Your task to perform on an android device: turn off sleep mode Image 0: 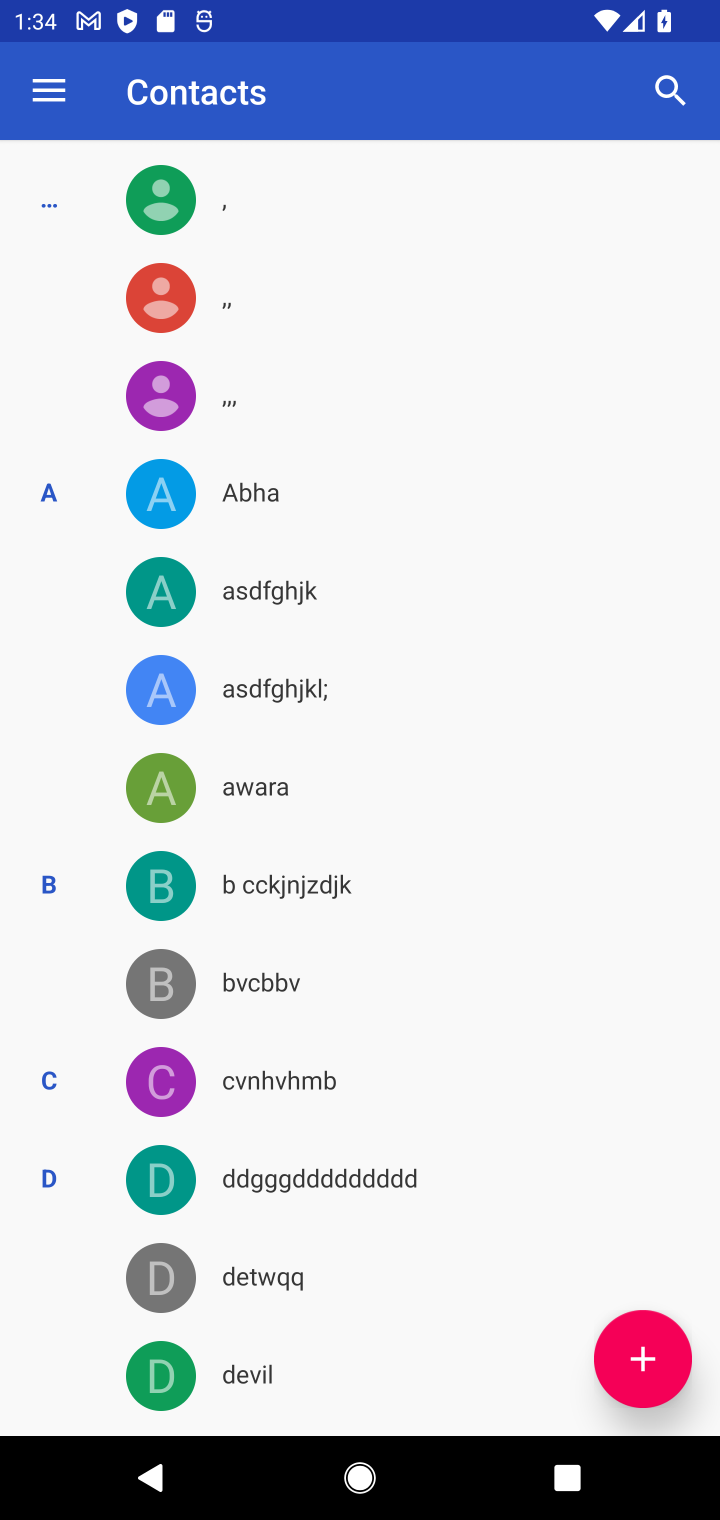
Step 0: press home button
Your task to perform on an android device: turn off sleep mode Image 1: 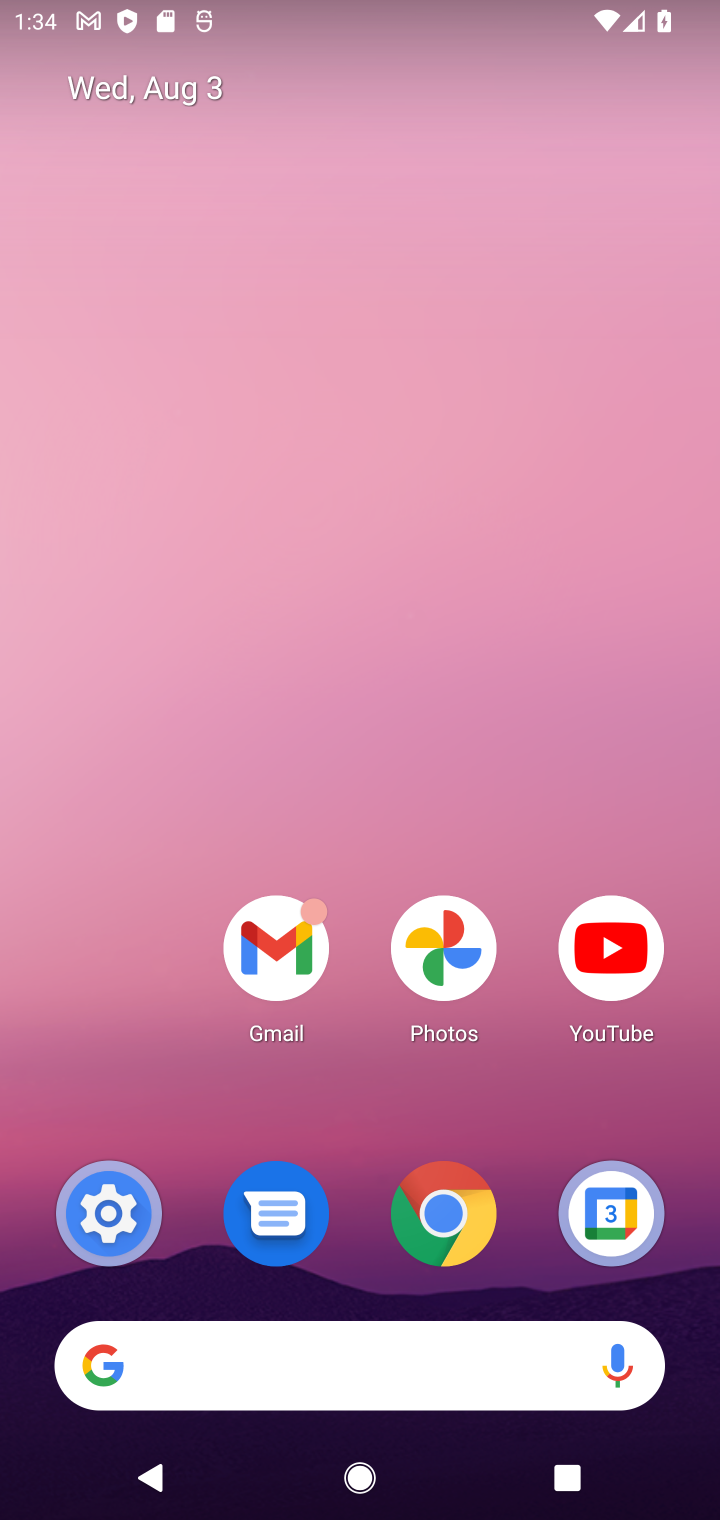
Step 1: drag from (353, 1336) to (505, 0)
Your task to perform on an android device: turn off sleep mode Image 2: 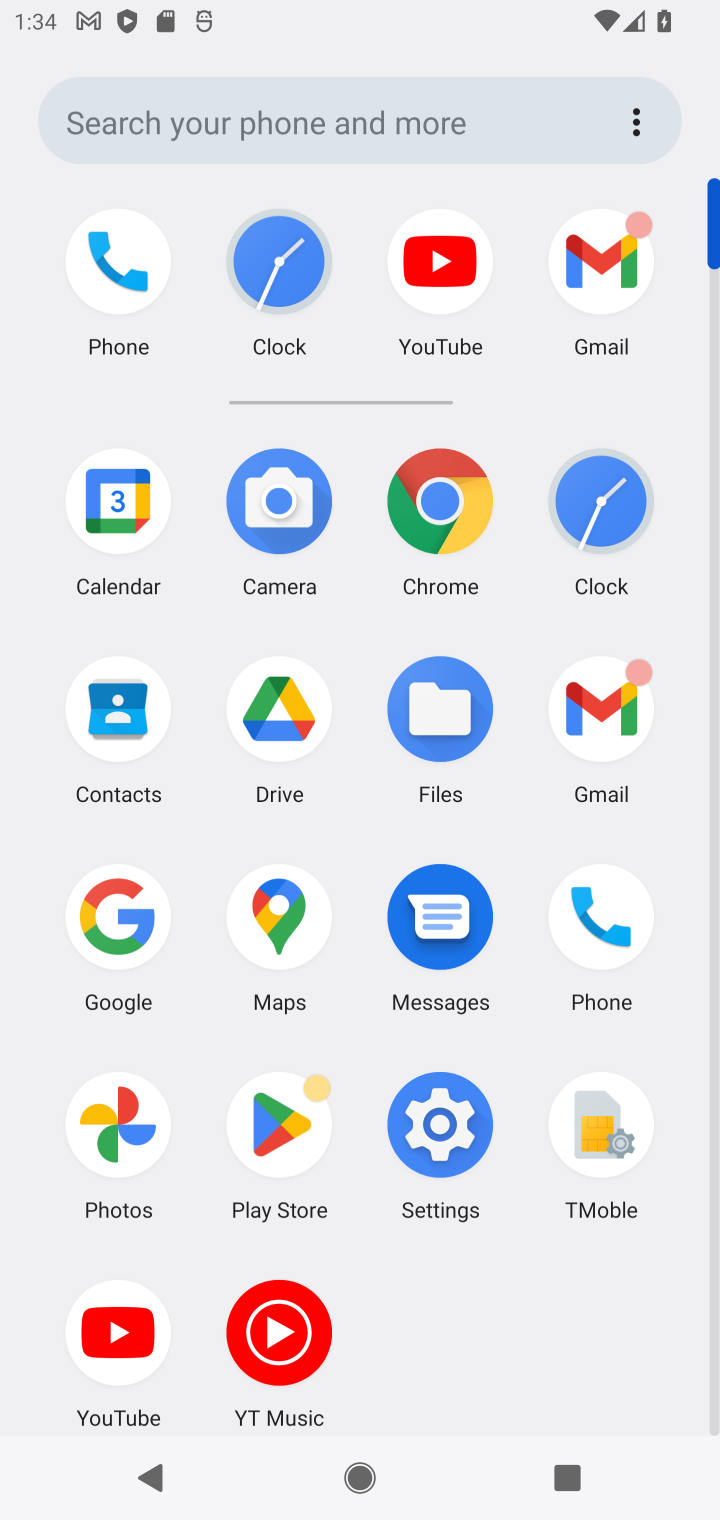
Step 2: click (436, 1132)
Your task to perform on an android device: turn off sleep mode Image 3: 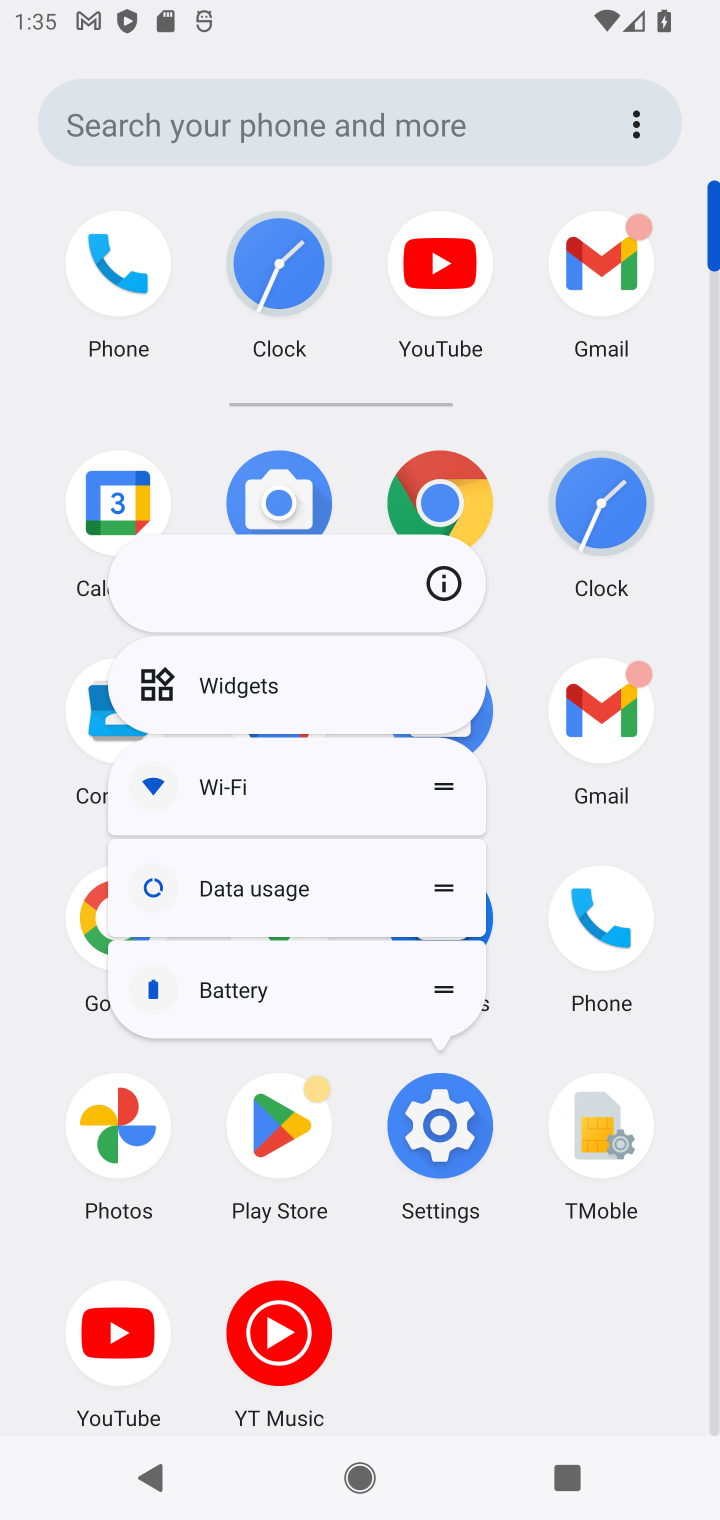
Step 3: click (434, 1136)
Your task to perform on an android device: turn off sleep mode Image 4: 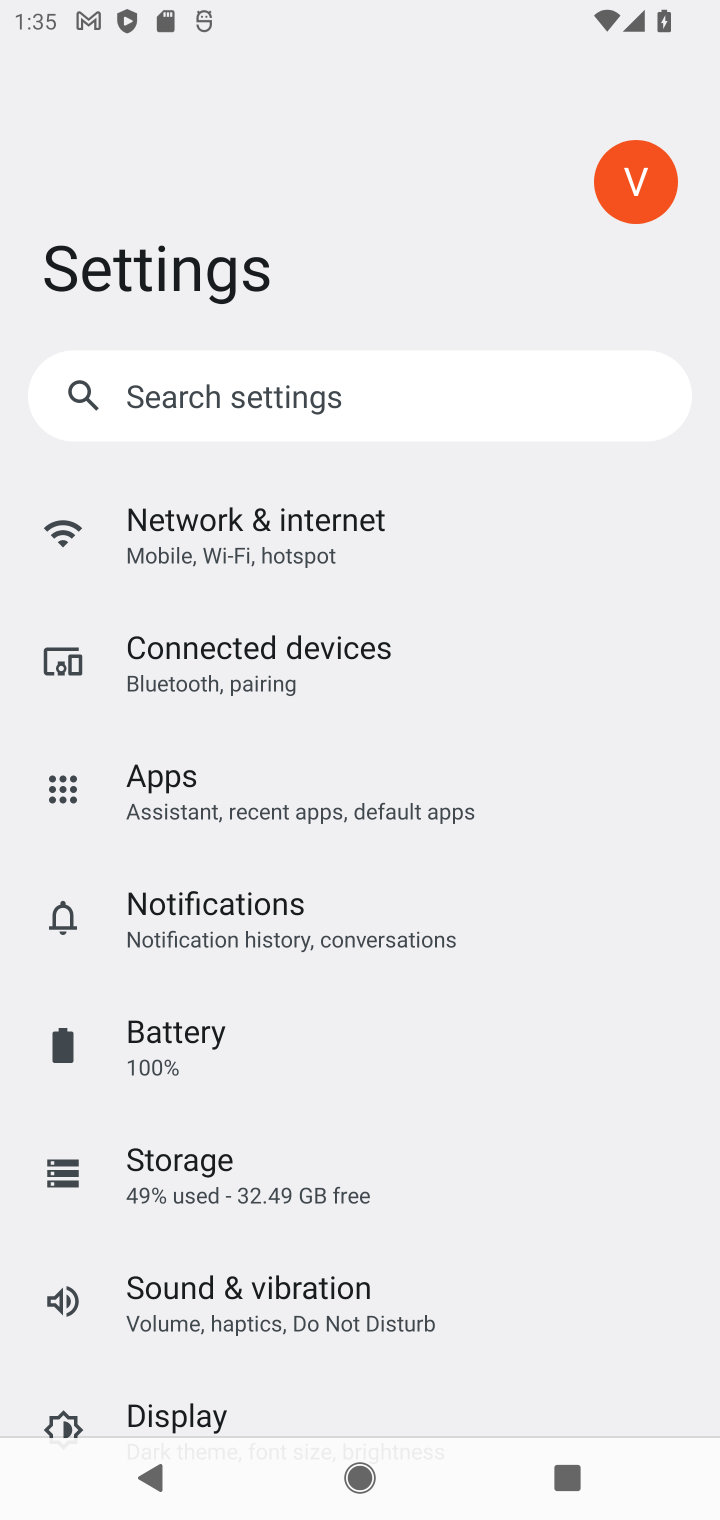
Step 4: drag from (360, 1016) to (403, 298)
Your task to perform on an android device: turn off sleep mode Image 5: 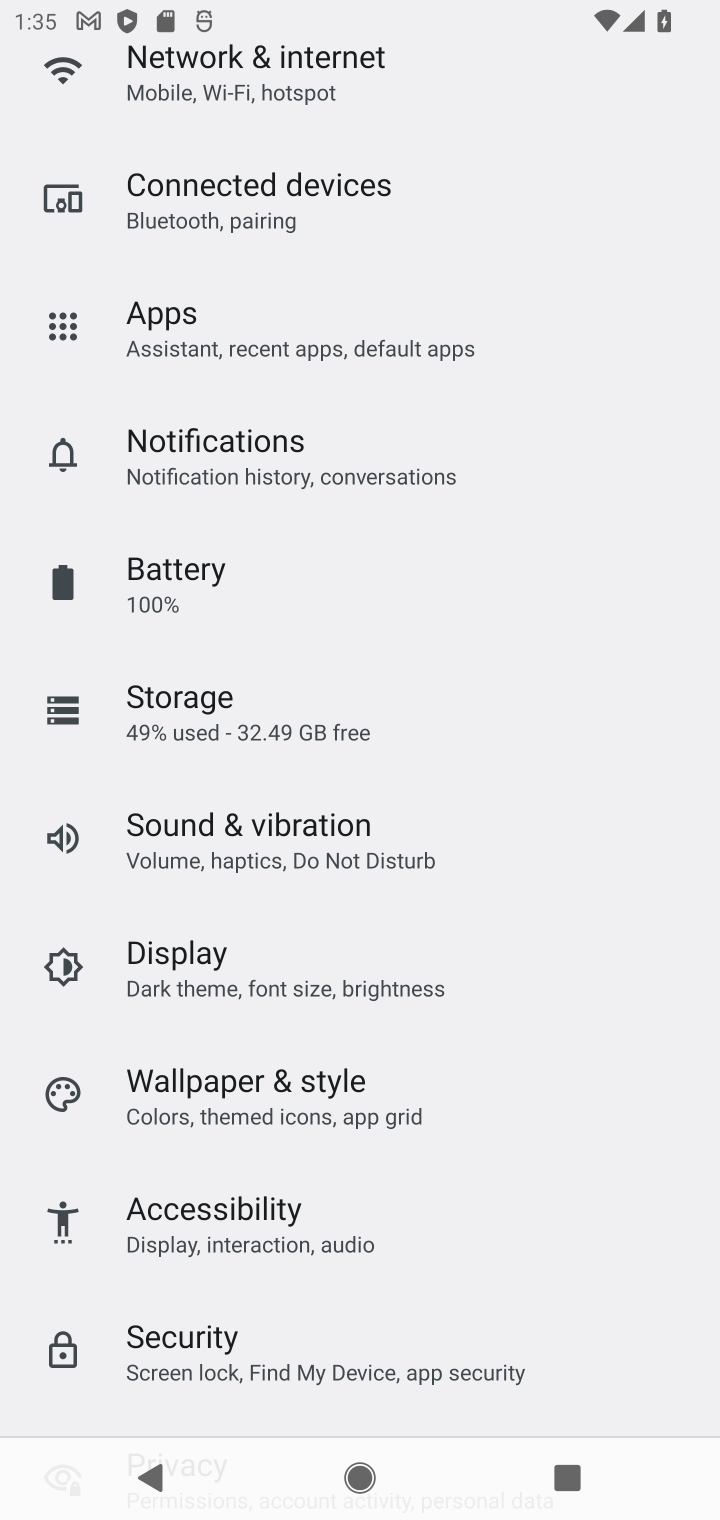
Step 5: click (273, 851)
Your task to perform on an android device: turn off sleep mode Image 6: 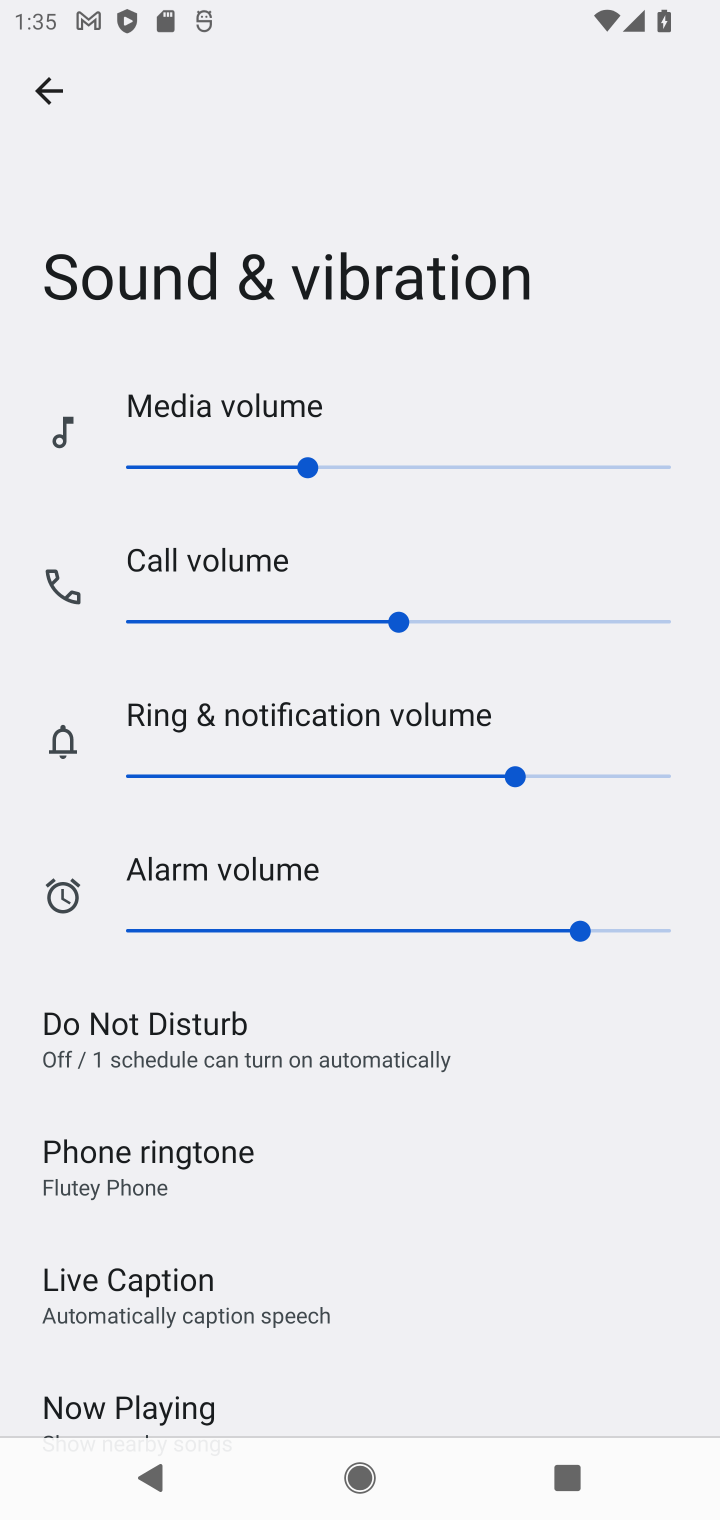
Step 6: task complete